Your task to perform on an android device: Open Chrome and go to the settings page Image 0: 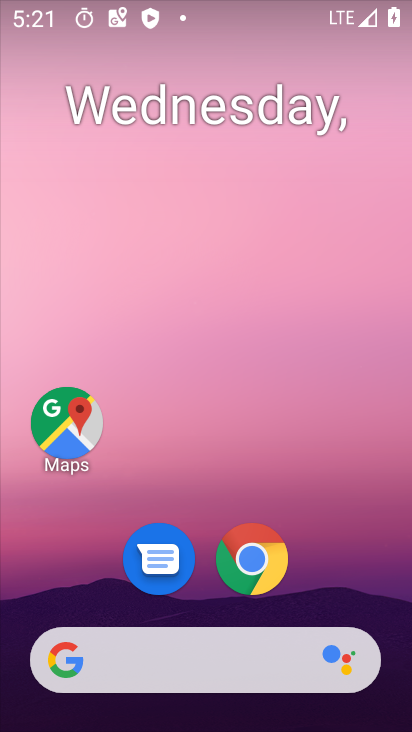
Step 0: click (267, 563)
Your task to perform on an android device: Open Chrome and go to the settings page Image 1: 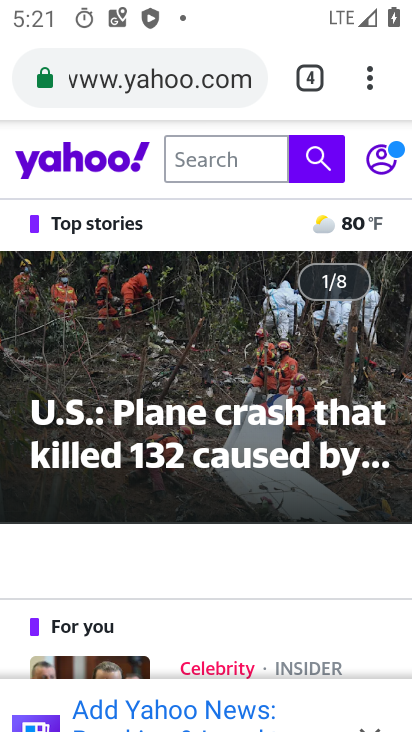
Step 1: click (368, 80)
Your task to perform on an android device: Open Chrome and go to the settings page Image 2: 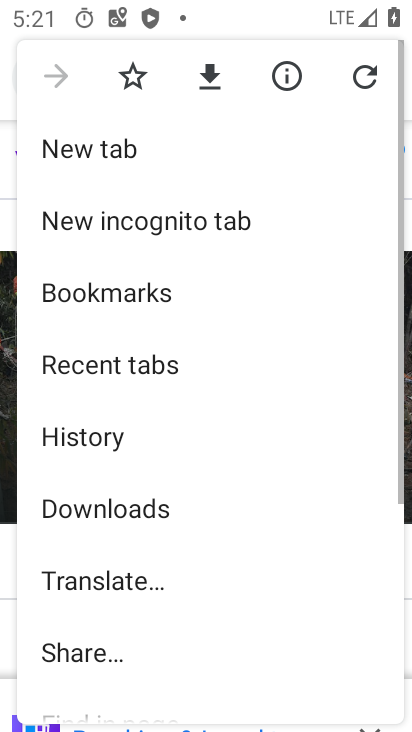
Step 2: drag from (278, 643) to (227, 176)
Your task to perform on an android device: Open Chrome and go to the settings page Image 3: 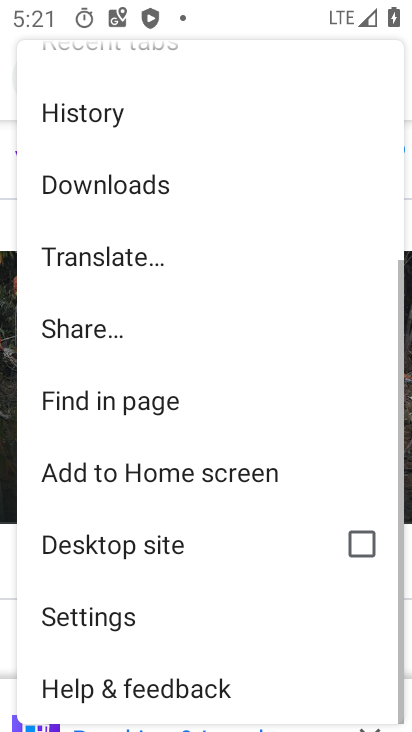
Step 3: click (141, 598)
Your task to perform on an android device: Open Chrome and go to the settings page Image 4: 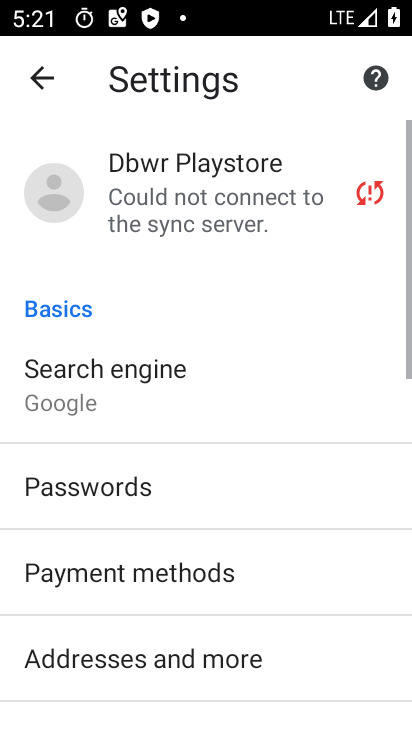
Step 4: task complete